Your task to perform on an android device: Open wifi settings Image 0: 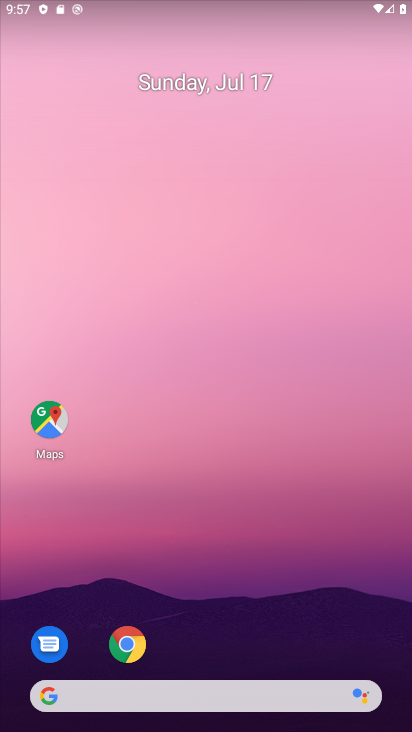
Step 0: drag from (264, 611) to (10, 368)
Your task to perform on an android device: Open wifi settings Image 1: 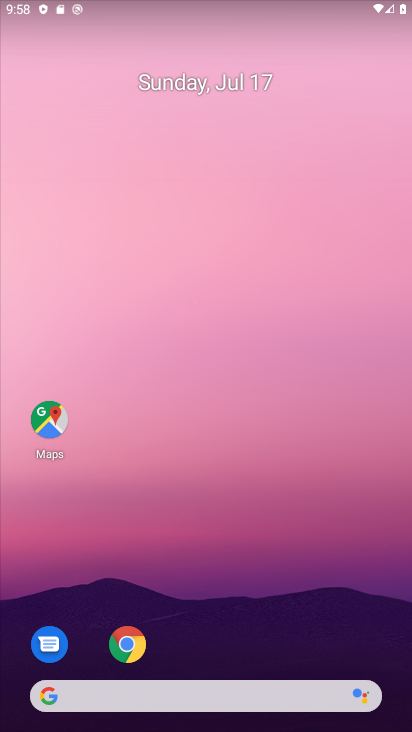
Step 1: drag from (266, 550) to (243, 0)
Your task to perform on an android device: Open wifi settings Image 2: 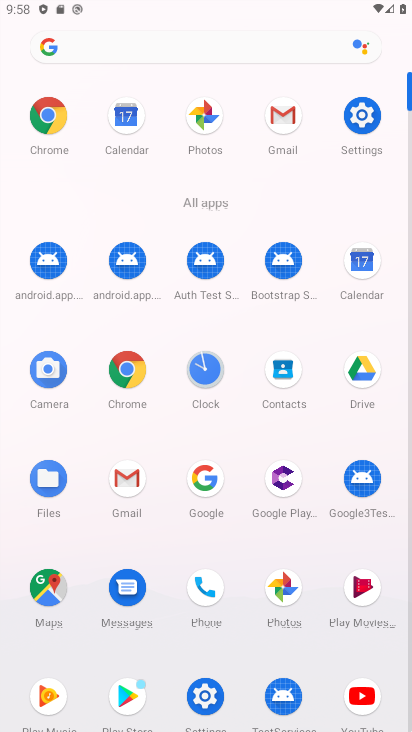
Step 2: click (359, 127)
Your task to perform on an android device: Open wifi settings Image 3: 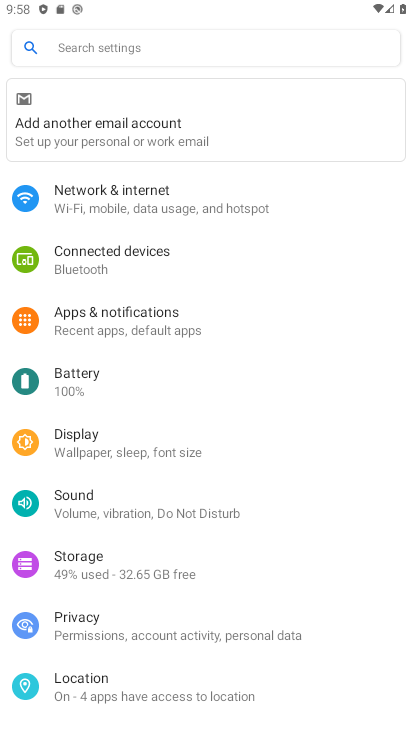
Step 3: click (81, 209)
Your task to perform on an android device: Open wifi settings Image 4: 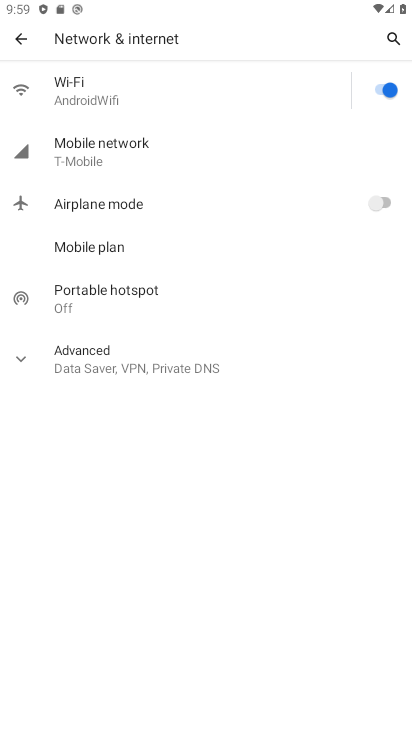
Step 4: click (44, 96)
Your task to perform on an android device: Open wifi settings Image 5: 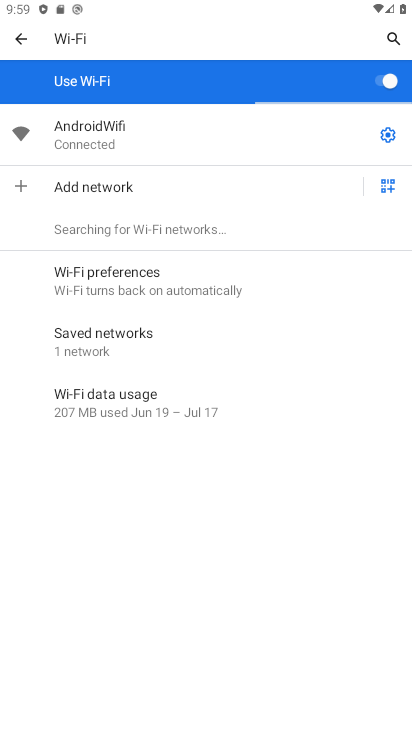
Step 5: task complete